Your task to perform on an android device: add a contact Image 0: 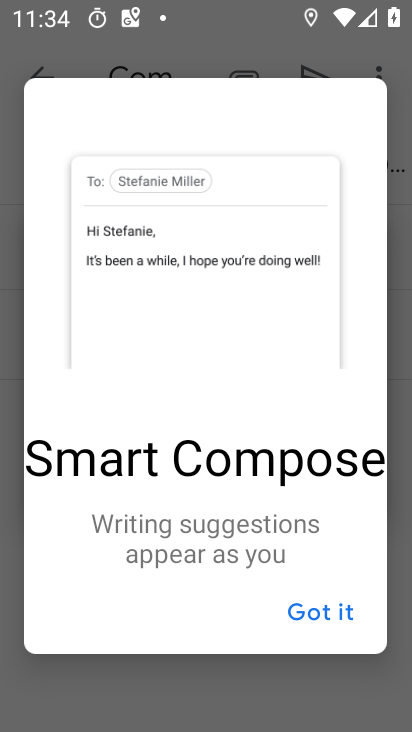
Step 0: press home button
Your task to perform on an android device: add a contact Image 1: 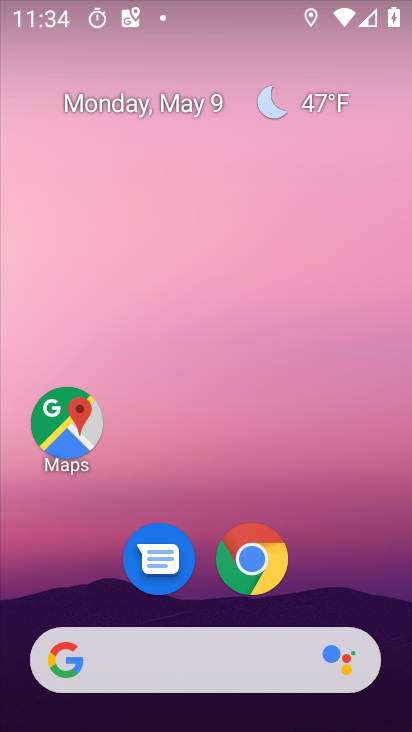
Step 1: drag from (353, 587) to (330, 5)
Your task to perform on an android device: add a contact Image 2: 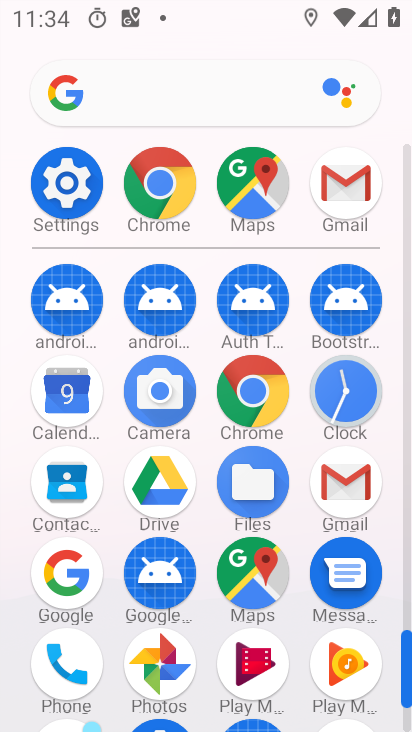
Step 2: click (66, 474)
Your task to perform on an android device: add a contact Image 3: 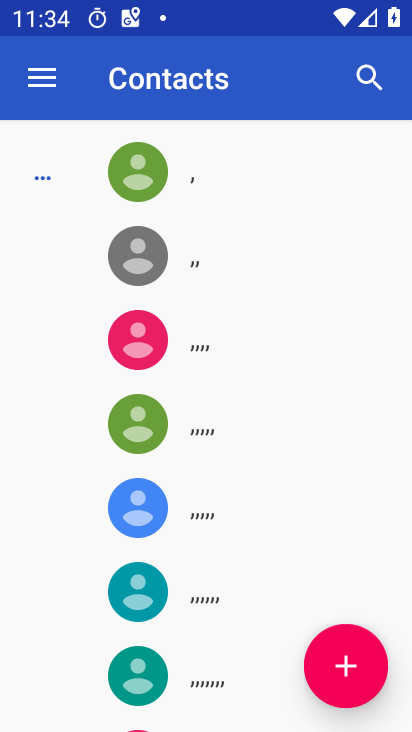
Step 3: drag from (193, 661) to (213, 290)
Your task to perform on an android device: add a contact Image 4: 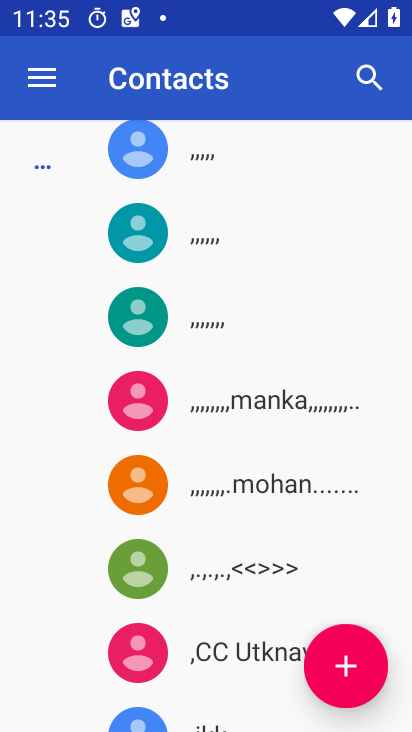
Step 4: click (349, 664)
Your task to perform on an android device: add a contact Image 5: 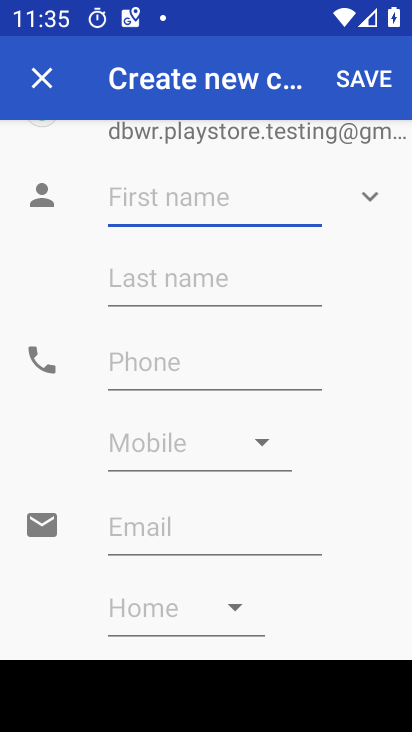
Step 5: type "djhck"
Your task to perform on an android device: add a contact Image 6: 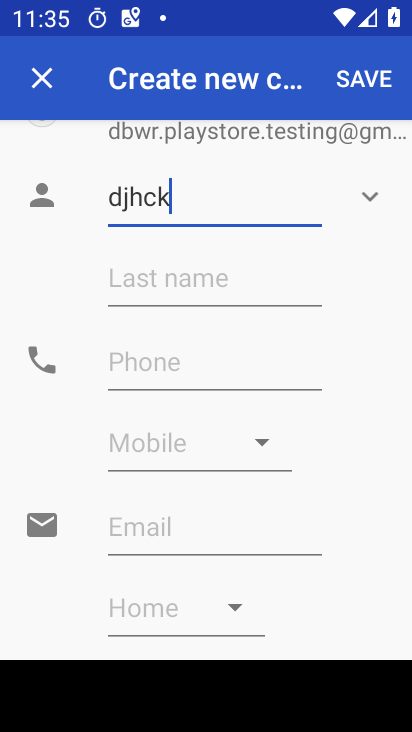
Step 6: type "siuhiws"
Your task to perform on an android device: add a contact Image 7: 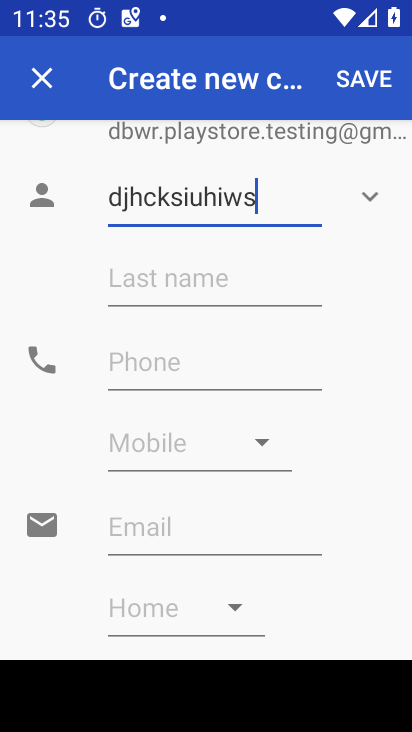
Step 7: click (171, 366)
Your task to perform on an android device: add a contact Image 8: 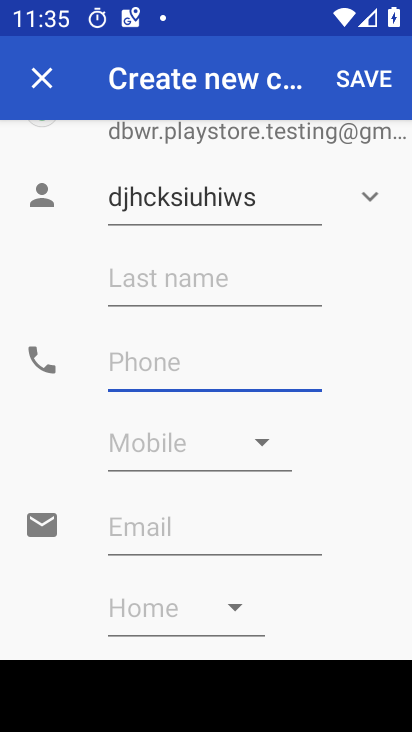
Step 8: type "879"
Your task to perform on an android device: add a contact Image 9: 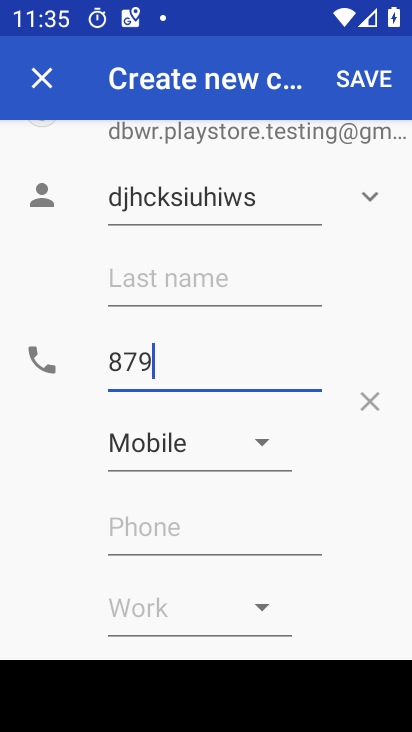
Step 9: click (375, 72)
Your task to perform on an android device: add a contact Image 10: 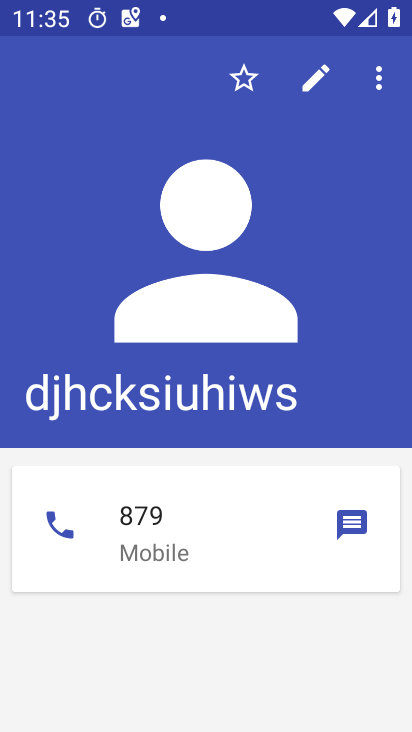
Step 10: task complete